Your task to perform on an android device: Show me popular videos on Youtube Image 0: 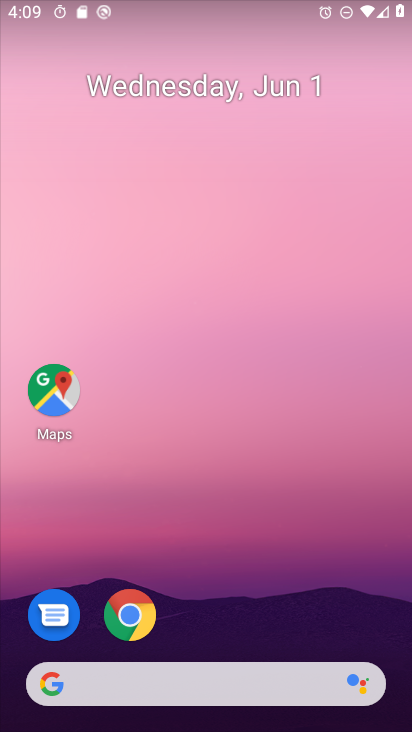
Step 0: drag from (211, 676) to (160, 43)
Your task to perform on an android device: Show me popular videos on Youtube Image 1: 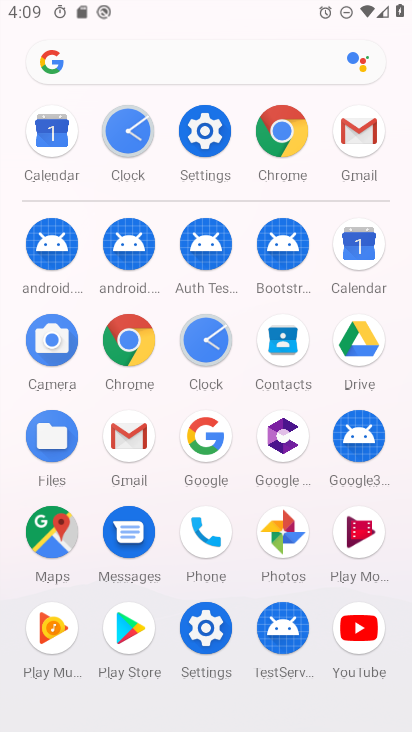
Step 1: click (372, 632)
Your task to perform on an android device: Show me popular videos on Youtube Image 2: 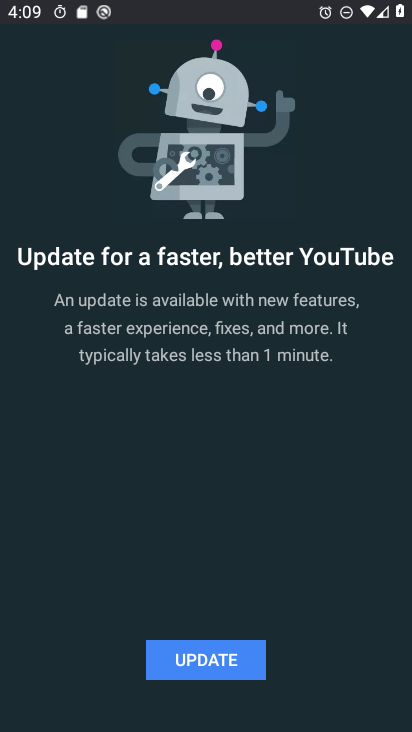
Step 2: click (242, 657)
Your task to perform on an android device: Show me popular videos on Youtube Image 3: 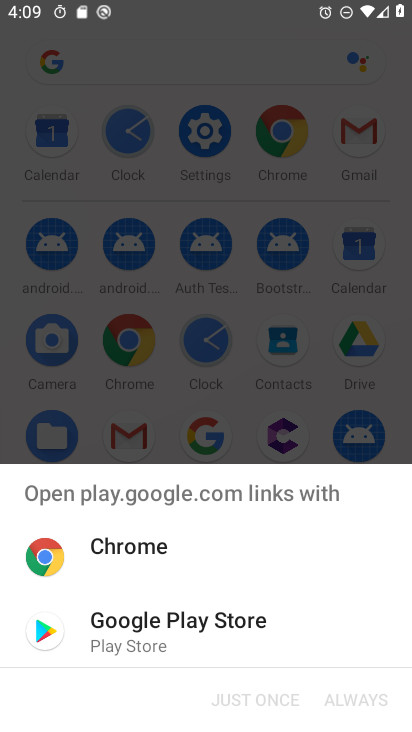
Step 3: click (141, 641)
Your task to perform on an android device: Show me popular videos on Youtube Image 4: 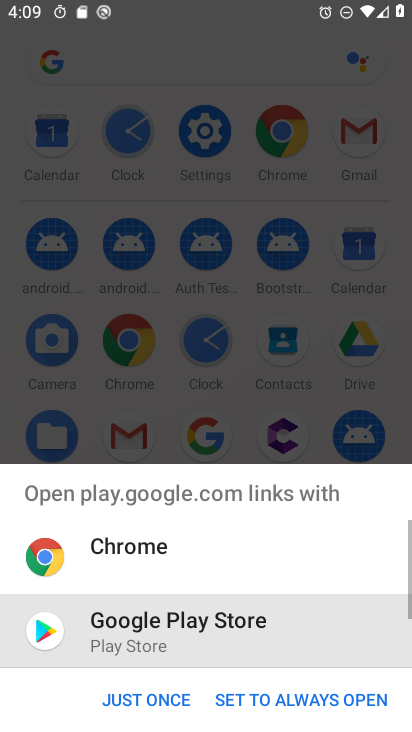
Step 4: click (170, 697)
Your task to perform on an android device: Show me popular videos on Youtube Image 5: 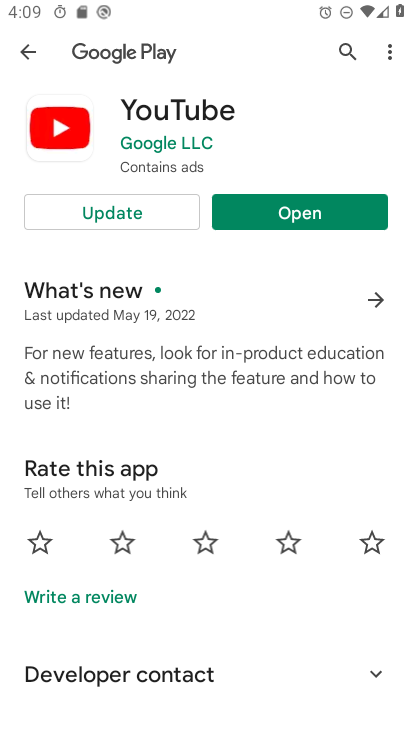
Step 5: click (90, 223)
Your task to perform on an android device: Show me popular videos on Youtube Image 6: 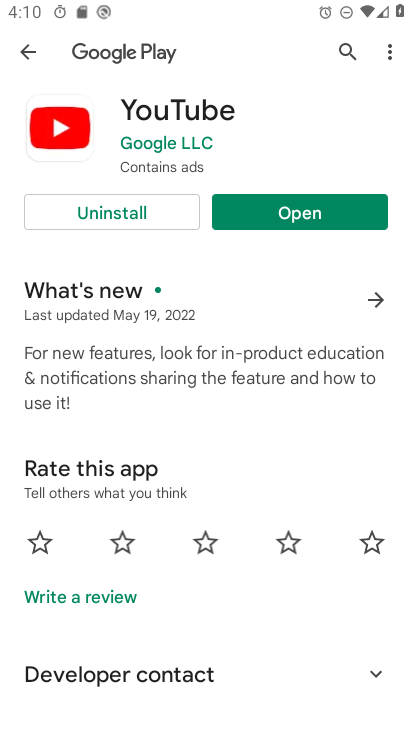
Step 6: click (271, 215)
Your task to perform on an android device: Show me popular videos on Youtube Image 7: 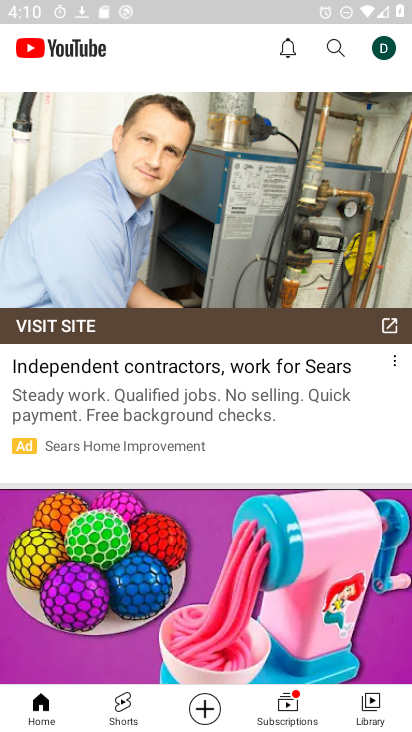
Step 7: task complete